Your task to perform on an android device: Go to network settings Image 0: 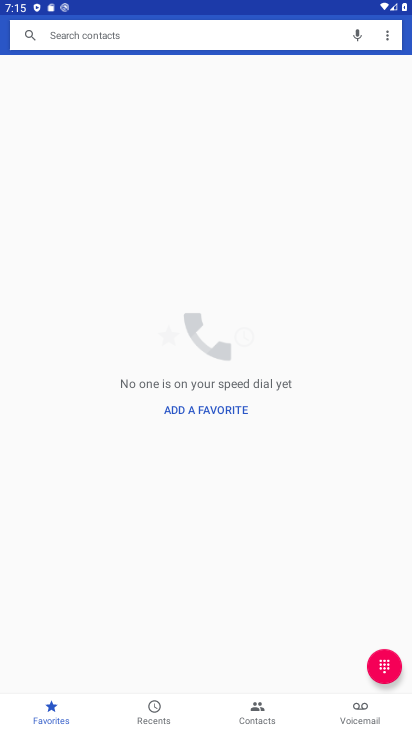
Step 0: click (243, 655)
Your task to perform on an android device: Go to network settings Image 1: 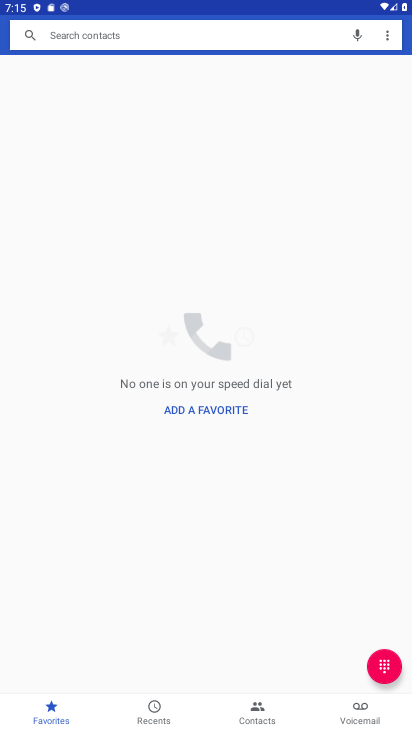
Step 1: press home button
Your task to perform on an android device: Go to network settings Image 2: 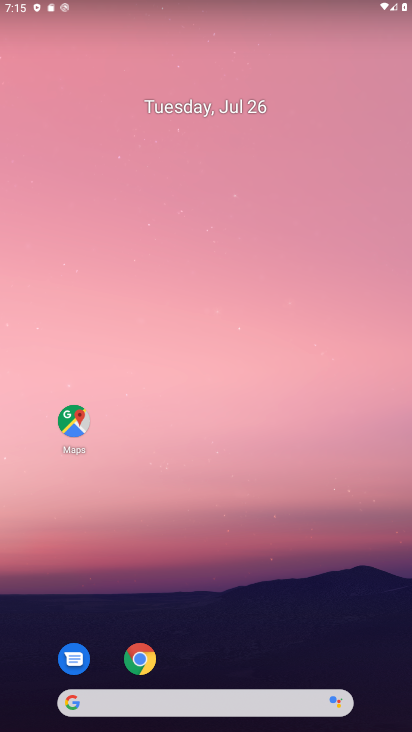
Step 2: drag from (218, 665) to (60, 35)
Your task to perform on an android device: Go to network settings Image 3: 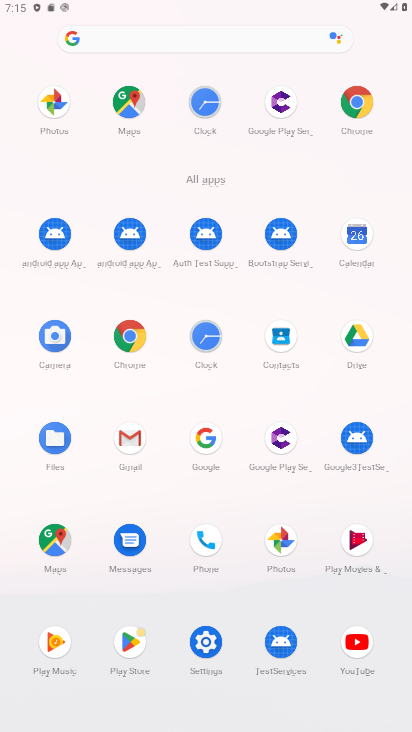
Step 3: click (206, 665)
Your task to perform on an android device: Go to network settings Image 4: 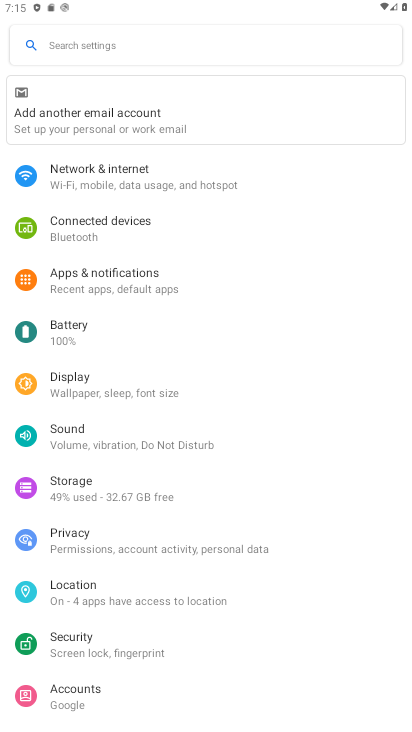
Step 4: click (91, 174)
Your task to perform on an android device: Go to network settings Image 5: 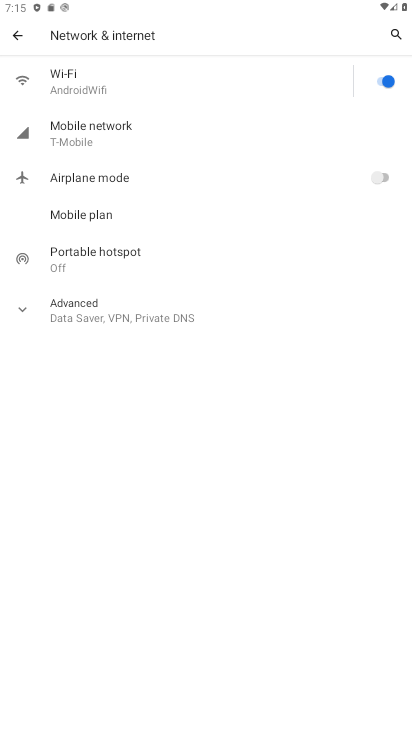
Step 5: click (91, 300)
Your task to perform on an android device: Go to network settings Image 6: 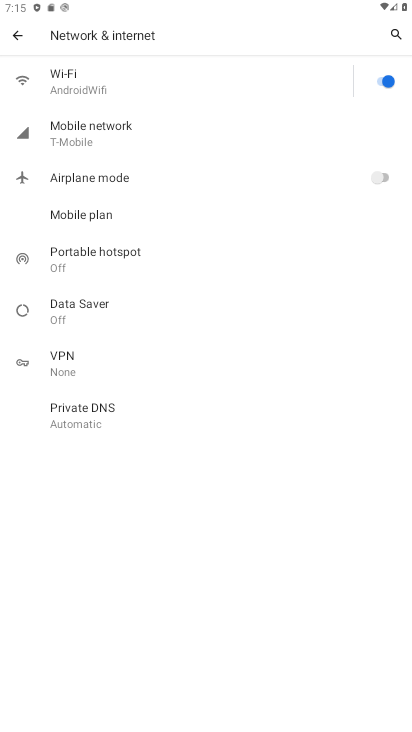
Step 6: task complete